Your task to perform on an android device: What is the news today? Image 0: 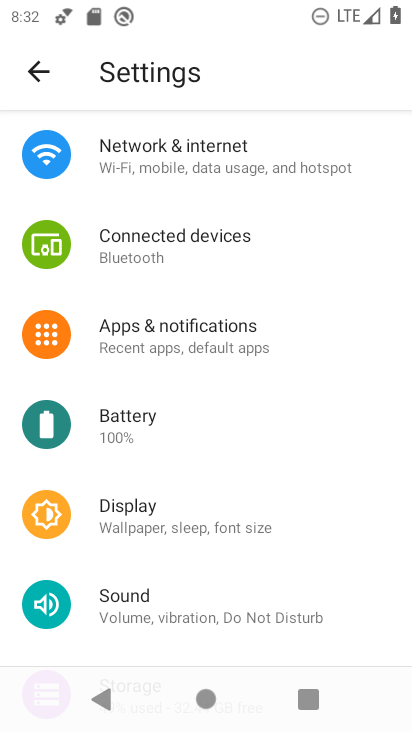
Step 0: press home button
Your task to perform on an android device: What is the news today? Image 1: 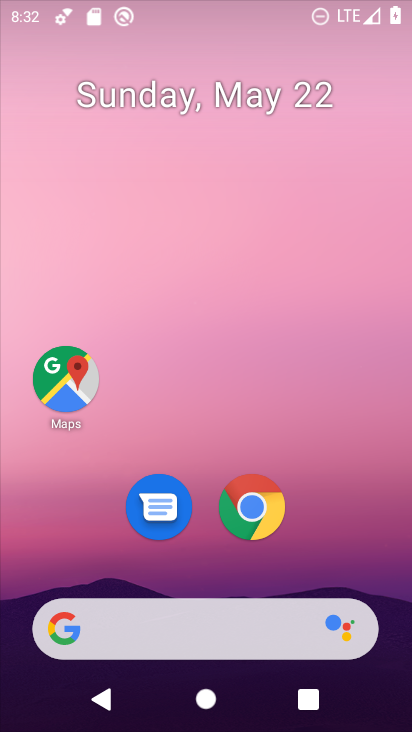
Step 1: click (201, 640)
Your task to perform on an android device: What is the news today? Image 2: 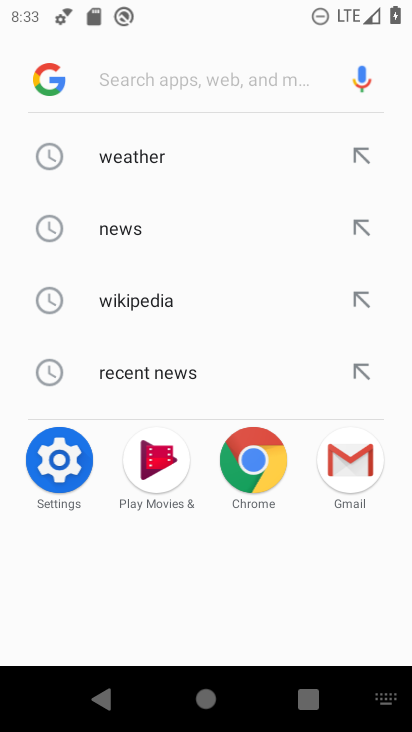
Step 2: type "What is the news today?"
Your task to perform on an android device: What is the news today? Image 3: 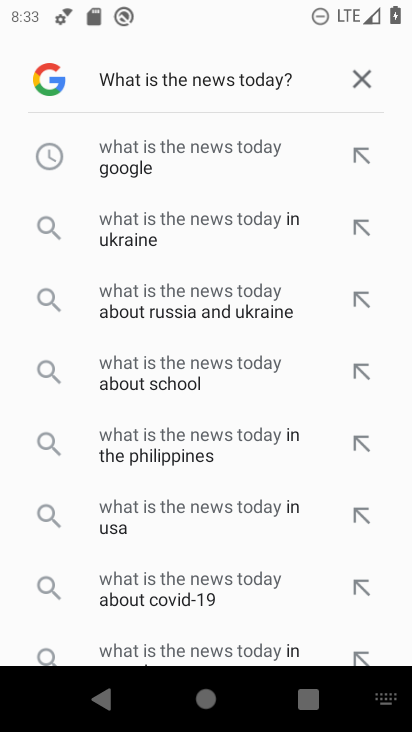
Step 3: click (254, 163)
Your task to perform on an android device: What is the news today? Image 4: 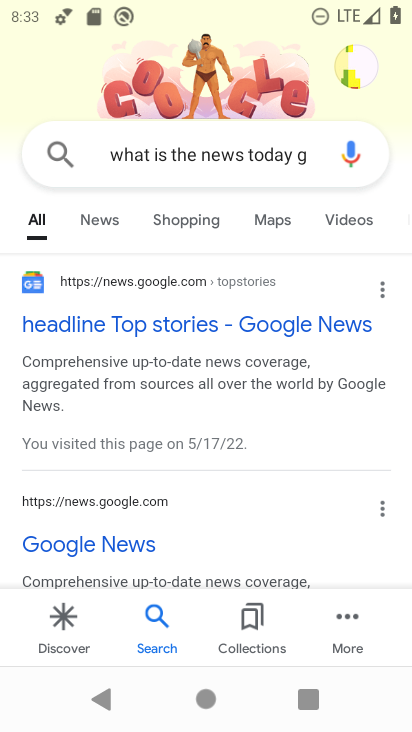
Step 4: task complete